Your task to perform on an android device: Go to settings Image 0: 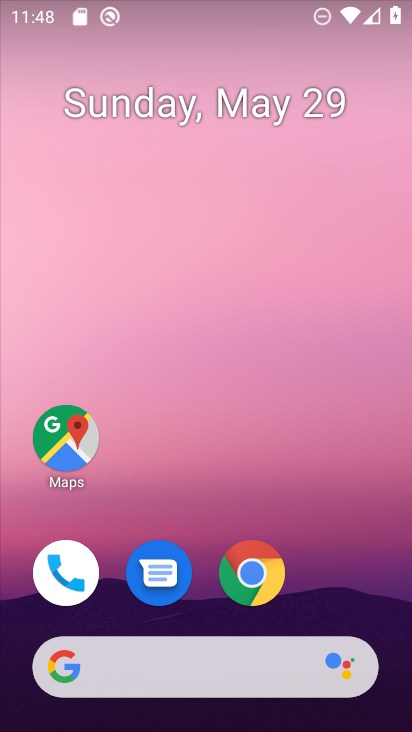
Step 0: drag from (362, 593) to (334, 229)
Your task to perform on an android device: Go to settings Image 1: 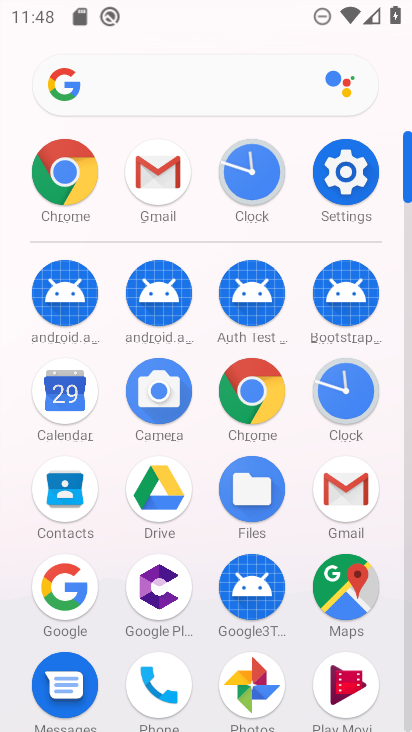
Step 1: click (357, 164)
Your task to perform on an android device: Go to settings Image 2: 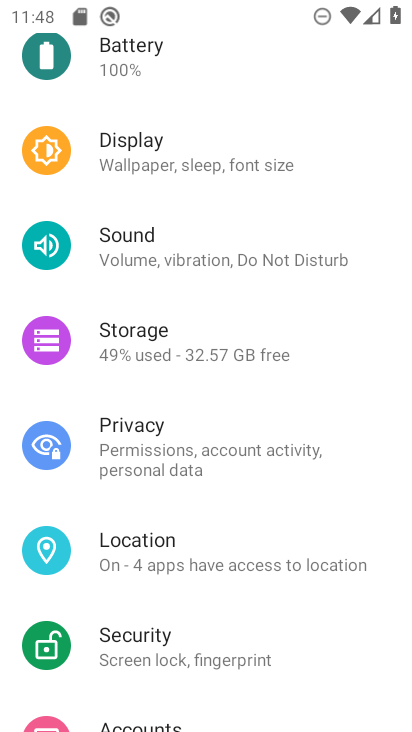
Step 2: task complete